Your task to perform on an android device: Go to Yahoo.com Image 0: 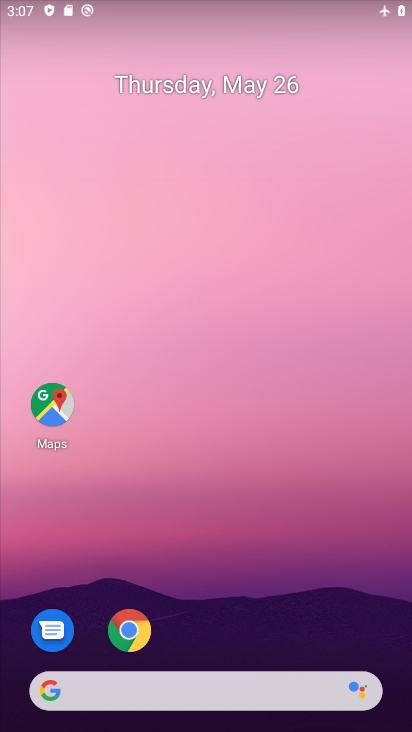
Step 0: click (130, 631)
Your task to perform on an android device: Go to Yahoo.com Image 1: 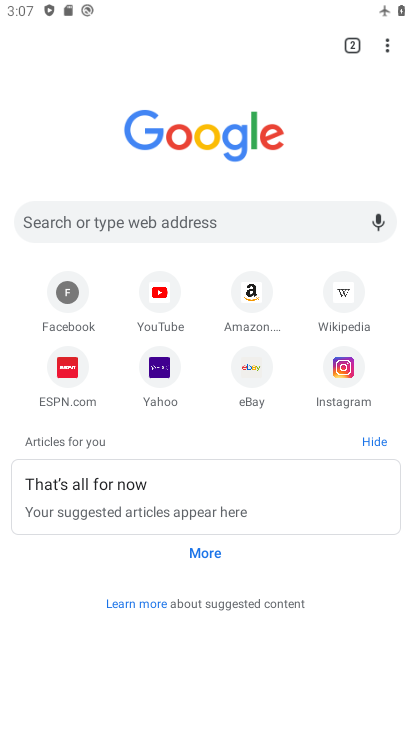
Step 1: click (175, 226)
Your task to perform on an android device: Go to Yahoo.com Image 2: 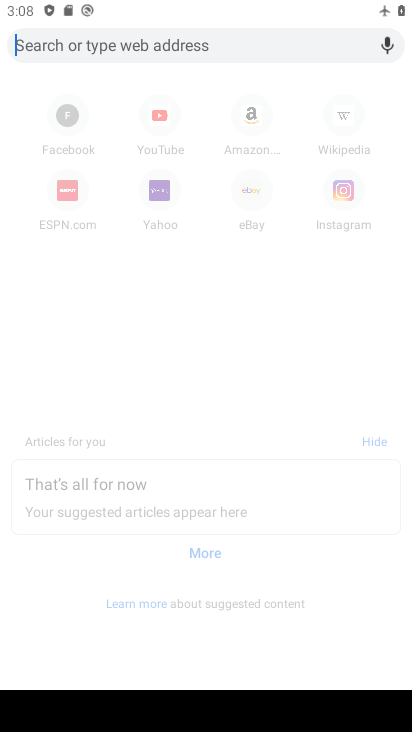
Step 2: type "Yahoo.com"
Your task to perform on an android device: Go to Yahoo.com Image 3: 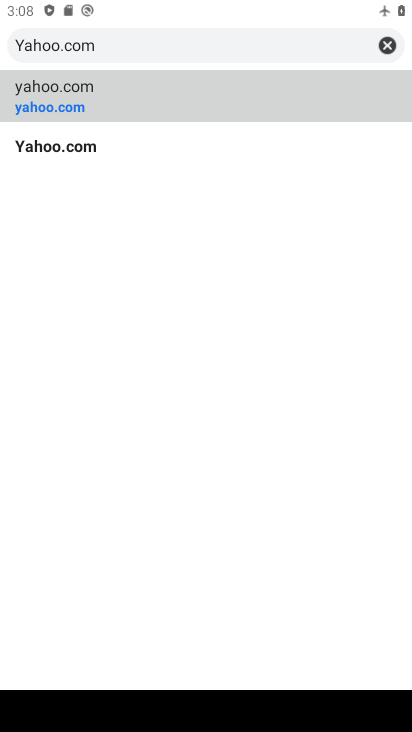
Step 3: click (74, 142)
Your task to perform on an android device: Go to Yahoo.com Image 4: 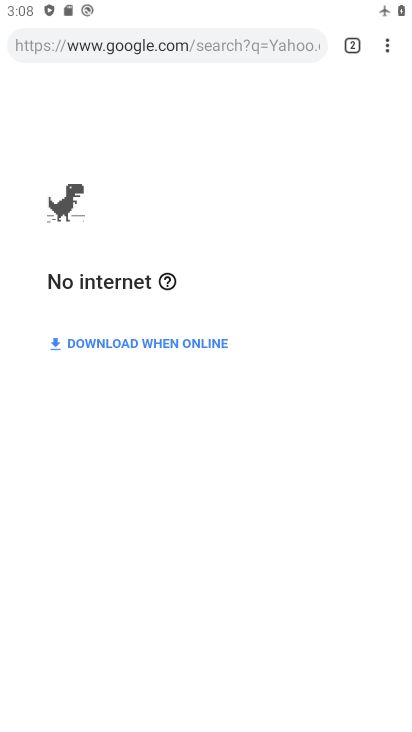
Step 4: task complete